Your task to perform on an android device: stop showing notifications on the lock screen Image 0: 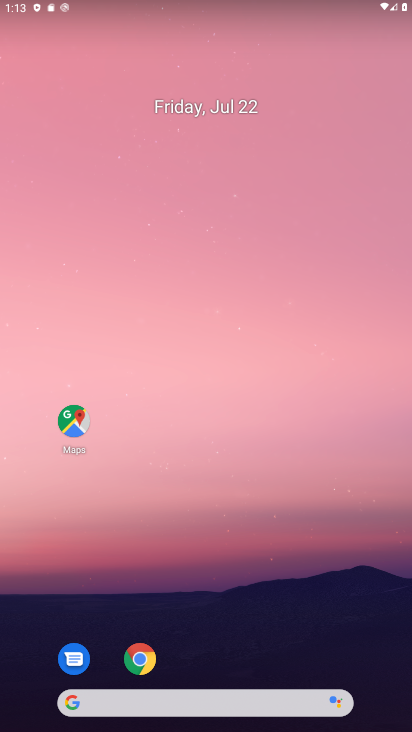
Step 0: drag from (319, 656) to (171, 46)
Your task to perform on an android device: stop showing notifications on the lock screen Image 1: 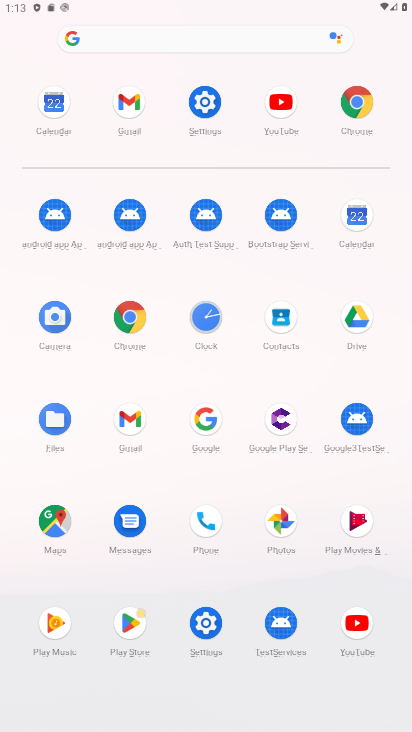
Step 1: click (219, 628)
Your task to perform on an android device: stop showing notifications on the lock screen Image 2: 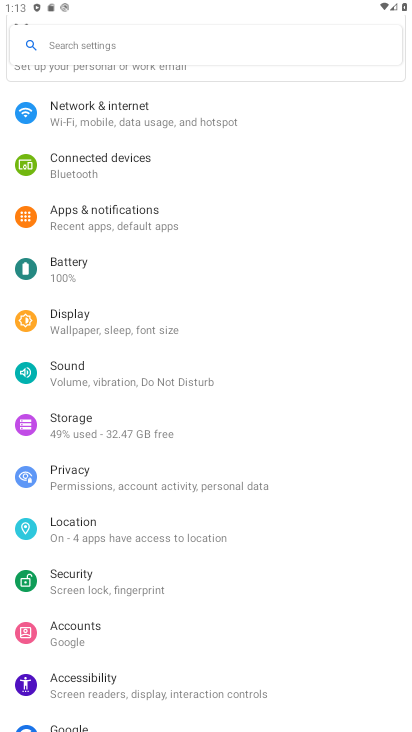
Step 2: click (146, 216)
Your task to perform on an android device: stop showing notifications on the lock screen Image 3: 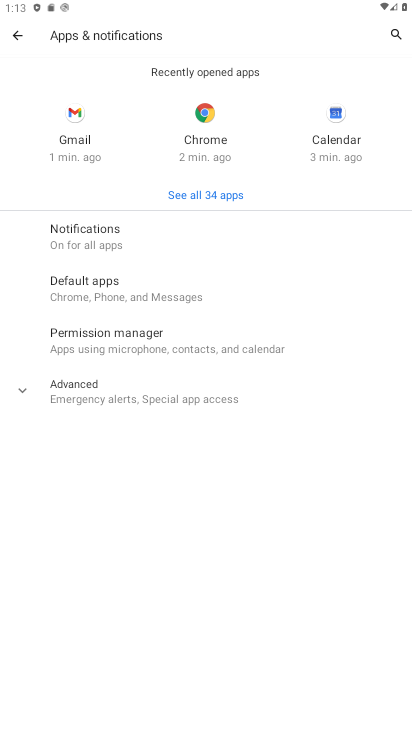
Step 3: click (124, 238)
Your task to perform on an android device: stop showing notifications on the lock screen Image 4: 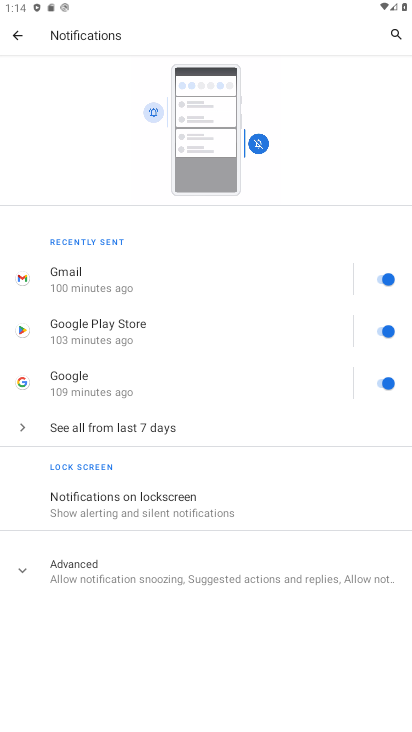
Step 4: click (207, 510)
Your task to perform on an android device: stop showing notifications on the lock screen Image 5: 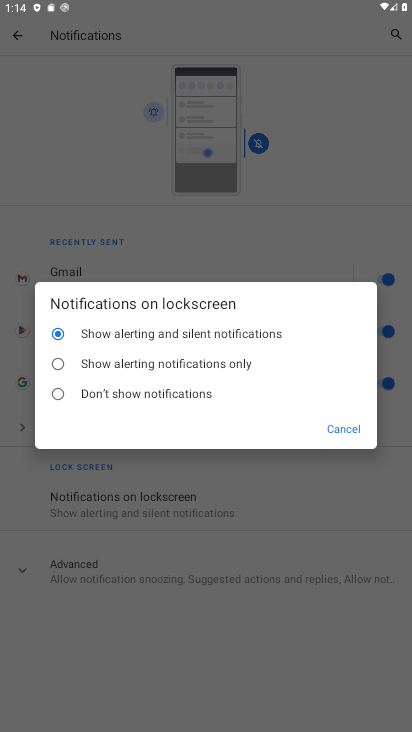
Step 5: click (188, 382)
Your task to perform on an android device: stop showing notifications on the lock screen Image 6: 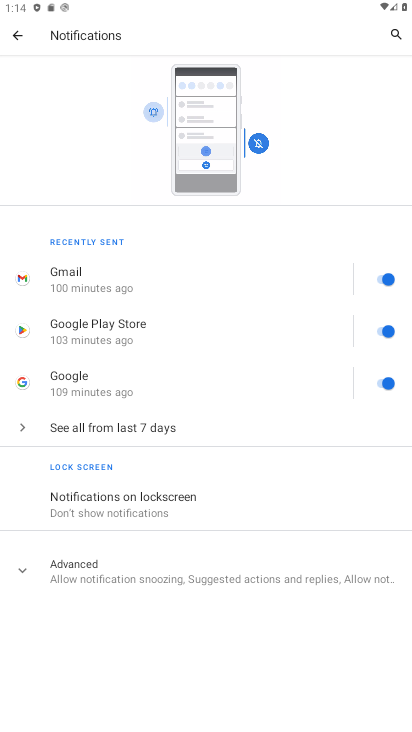
Step 6: task complete